Your task to perform on an android device: Show the shopping cart on amazon. Add "acer nitro" to the cart on amazon Image 0: 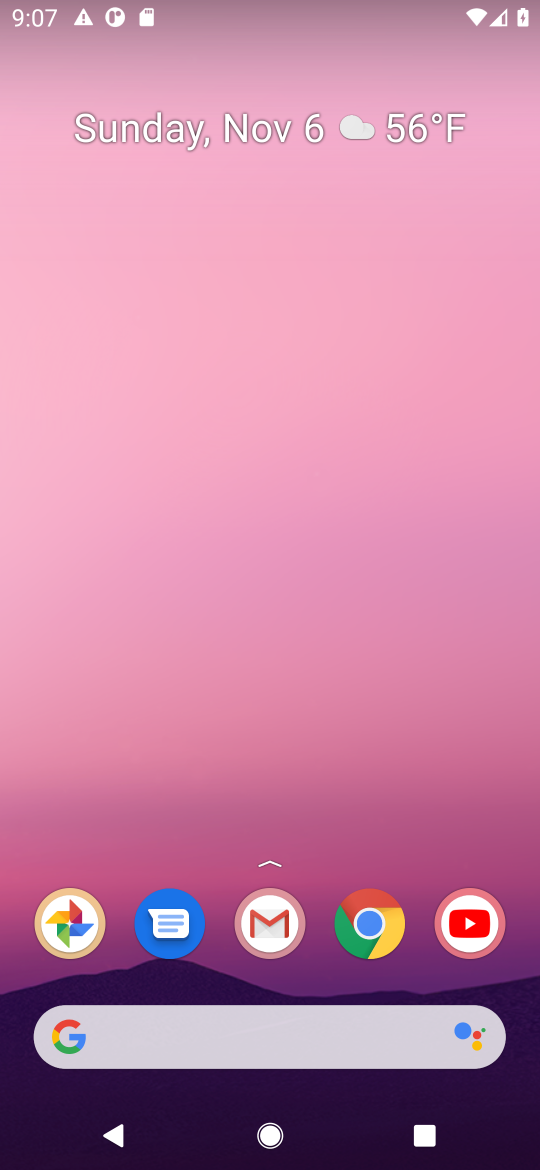
Step 0: click (363, 945)
Your task to perform on an android device: Show the shopping cart on amazon. Add "acer nitro" to the cart on amazon Image 1: 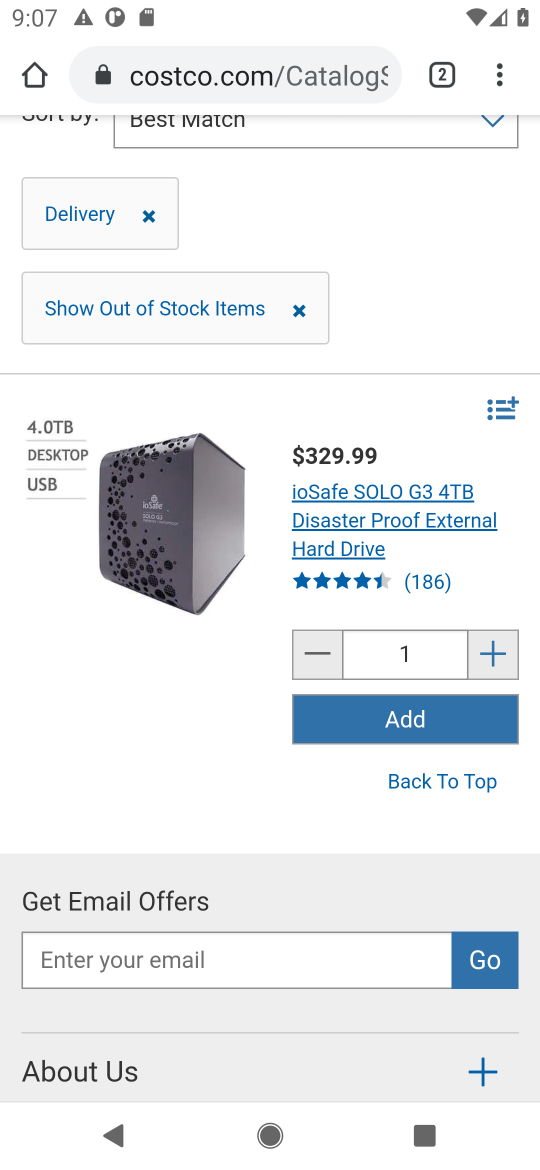
Step 1: click (241, 71)
Your task to perform on an android device: Show the shopping cart on amazon. Add "acer nitro" to the cart on amazon Image 2: 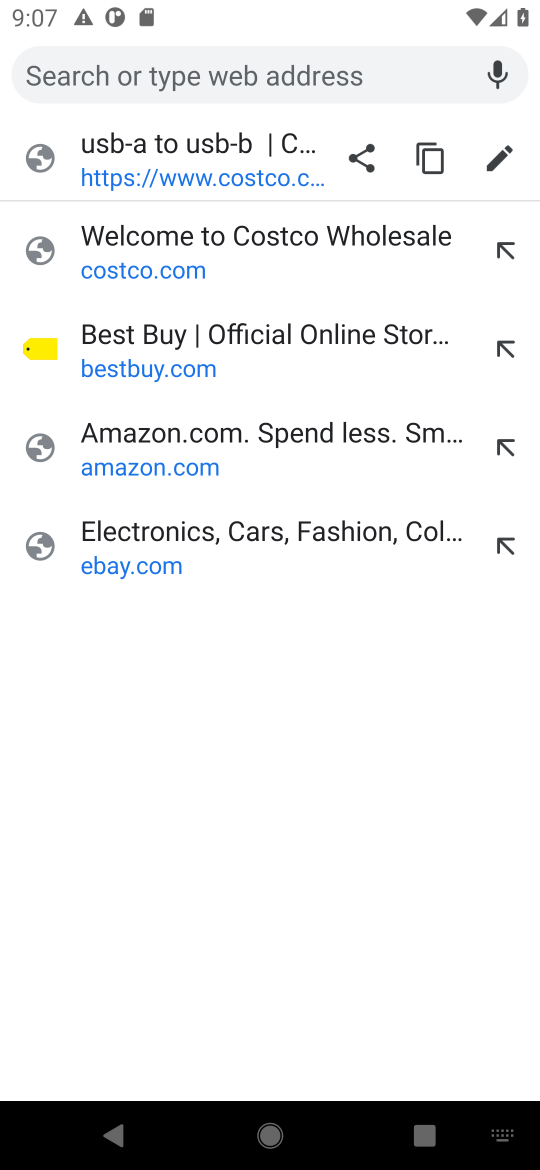
Step 2: click (159, 471)
Your task to perform on an android device: Show the shopping cart on amazon. Add "acer nitro" to the cart on amazon Image 3: 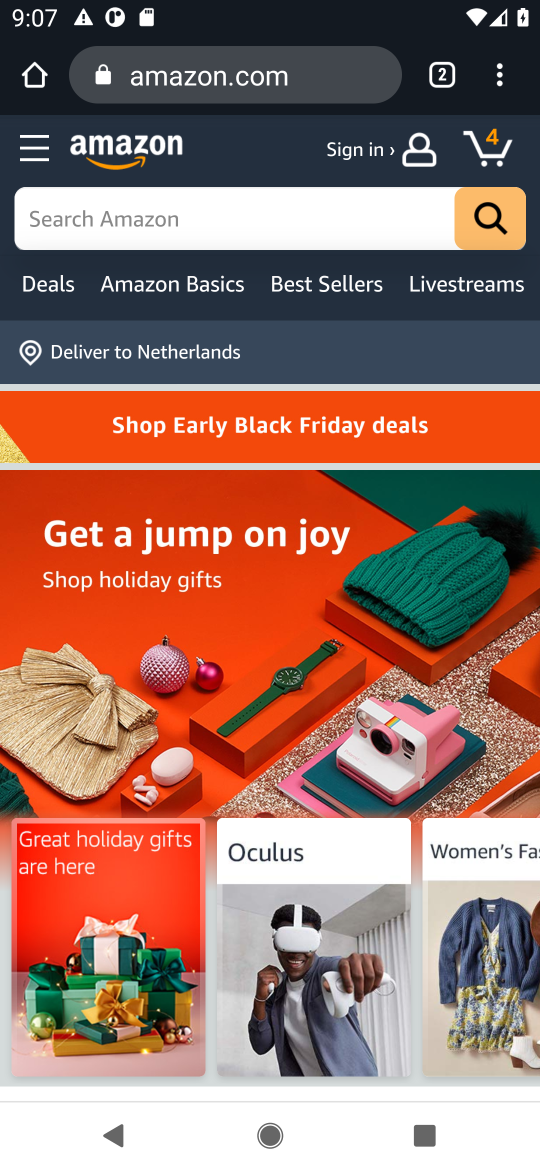
Step 3: click (481, 142)
Your task to perform on an android device: Show the shopping cart on amazon. Add "acer nitro" to the cart on amazon Image 4: 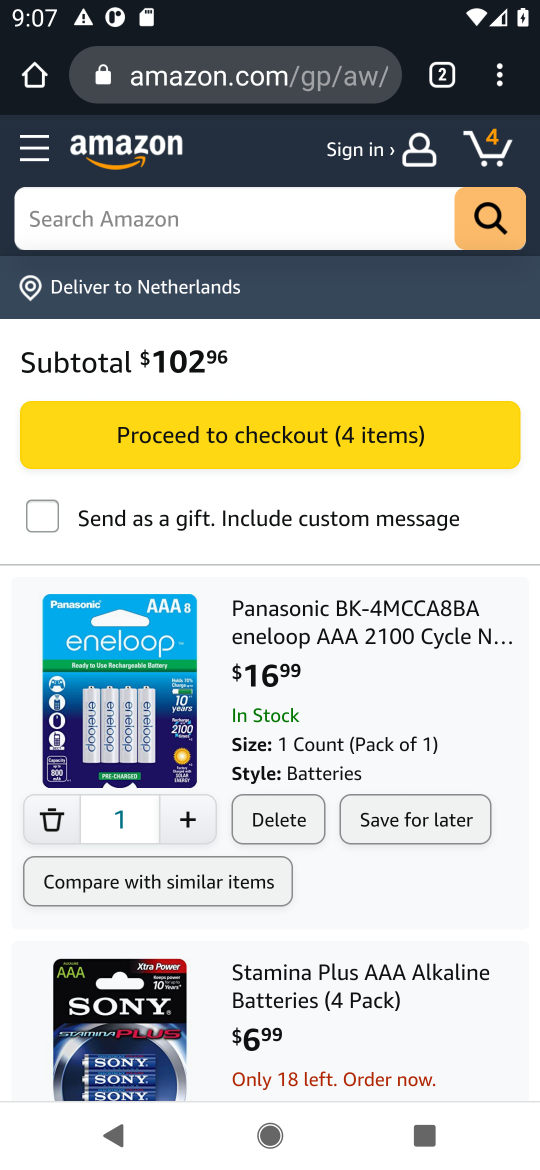
Step 4: click (285, 225)
Your task to perform on an android device: Show the shopping cart on amazon. Add "acer nitro" to the cart on amazon Image 5: 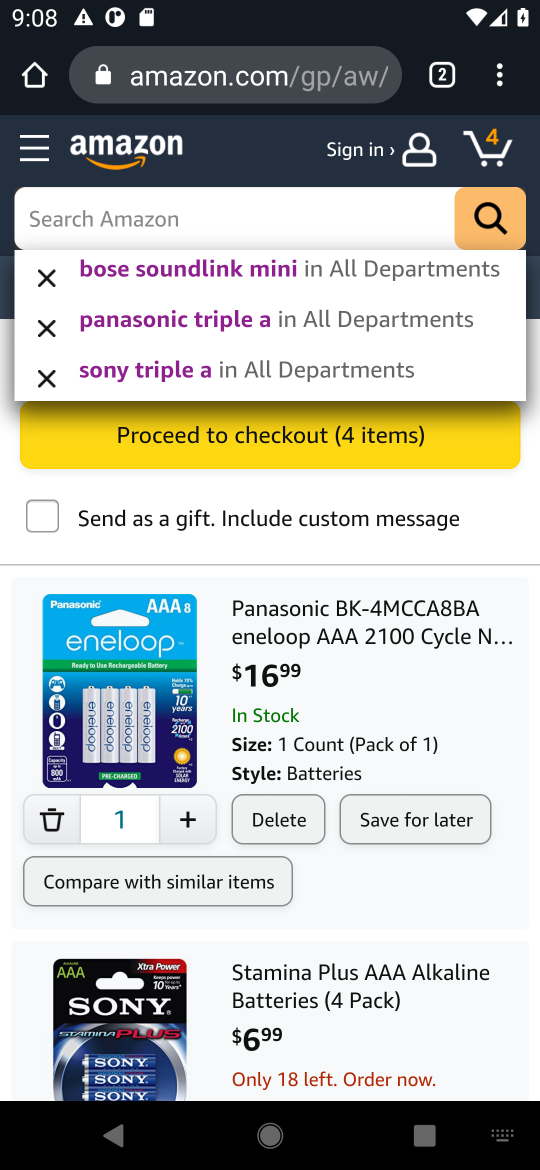
Step 5: type "acer nitro"
Your task to perform on an android device: Show the shopping cart on amazon. Add "acer nitro" to the cart on amazon Image 6: 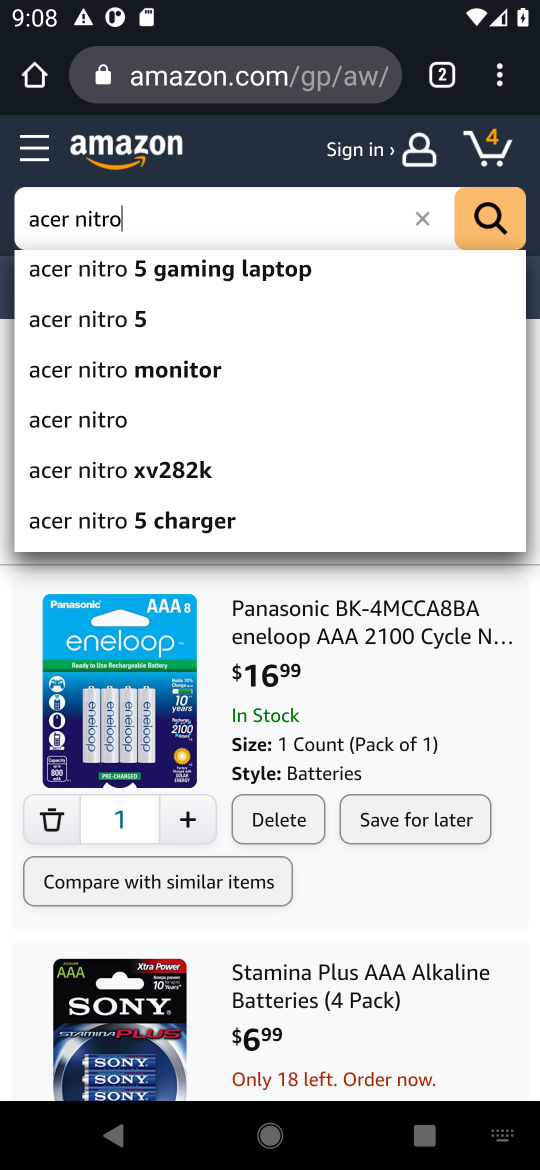
Step 6: click (71, 419)
Your task to perform on an android device: Show the shopping cart on amazon. Add "acer nitro" to the cart on amazon Image 7: 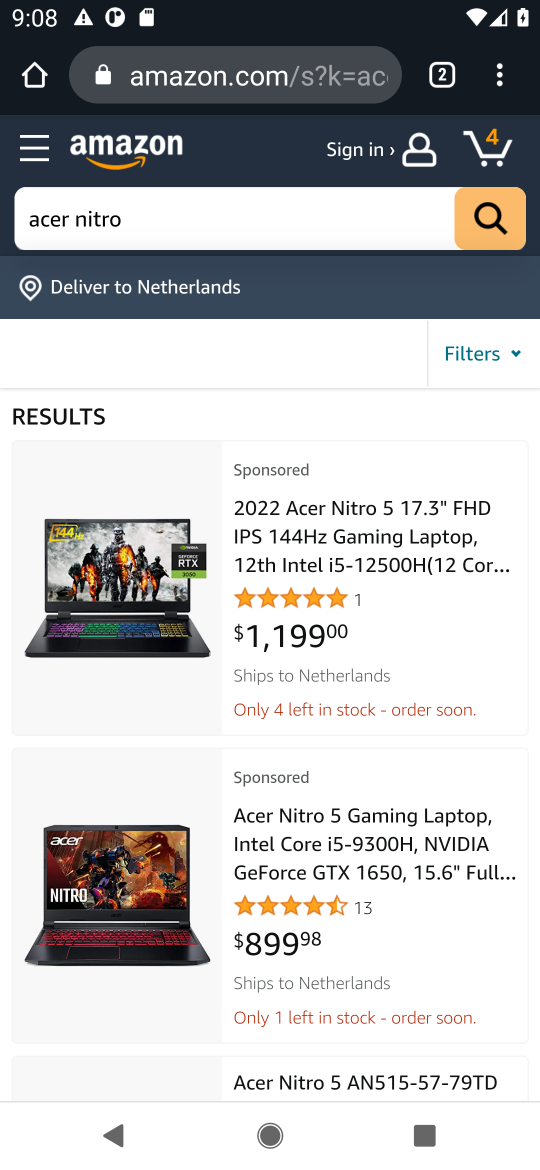
Step 7: click (336, 578)
Your task to perform on an android device: Show the shopping cart on amazon. Add "acer nitro" to the cart on amazon Image 8: 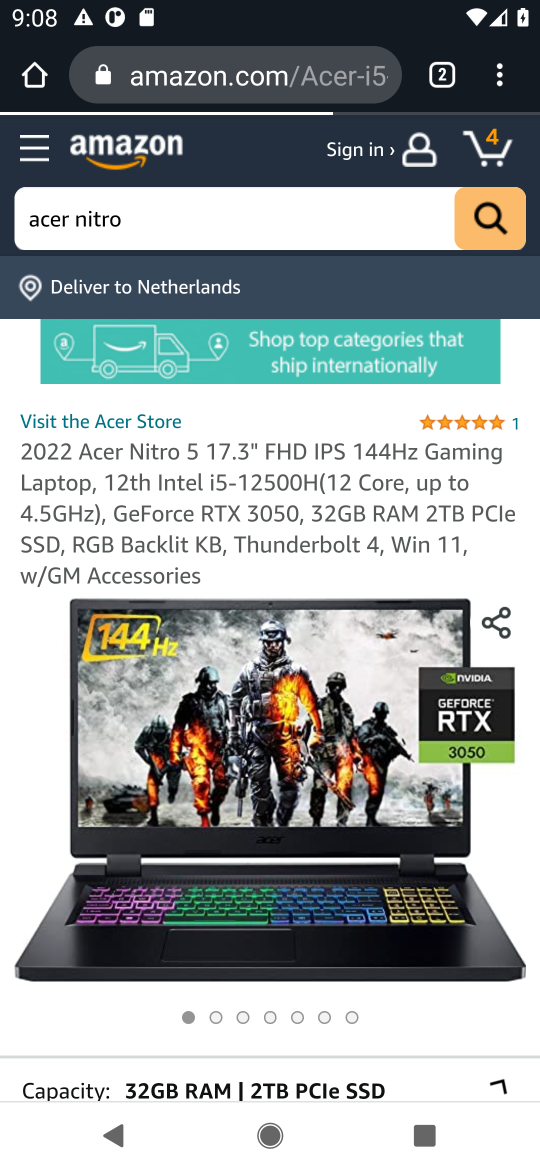
Step 8: drag from (184, 824) to (194, 351)
Your task to perform on an android device: Show the shopping cart on amazon. Add "acer nitro" to the cart on amazon Image 9: 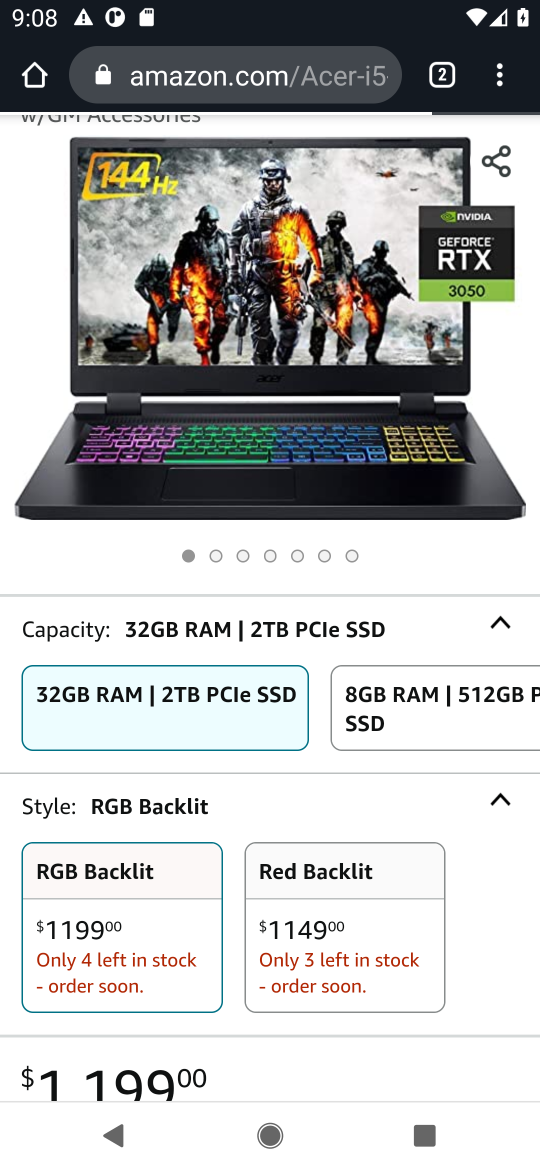
Step 9: drag from (331, 1008) to (283, 483)
Your task to perform on an android device: Show the shopping cart on amazon. Add "acer nitro" to the cart on amazon Image 10: 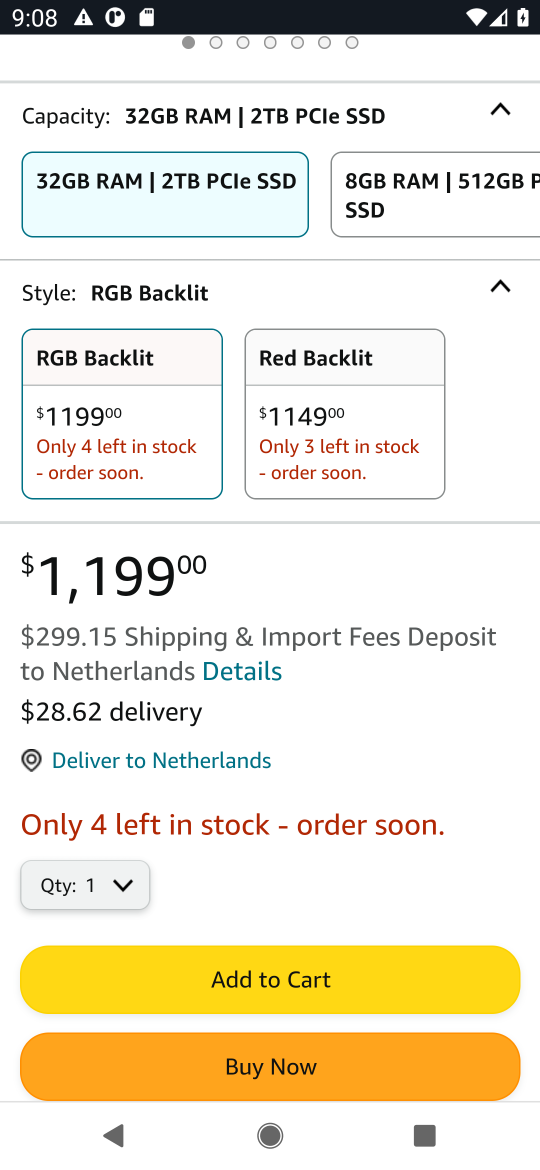
Step 10: click (332, 973)
Your task to perform on an android device: Show the shopping cart on amazon. Add "acer nitro" to the cart on amazon Image 11: 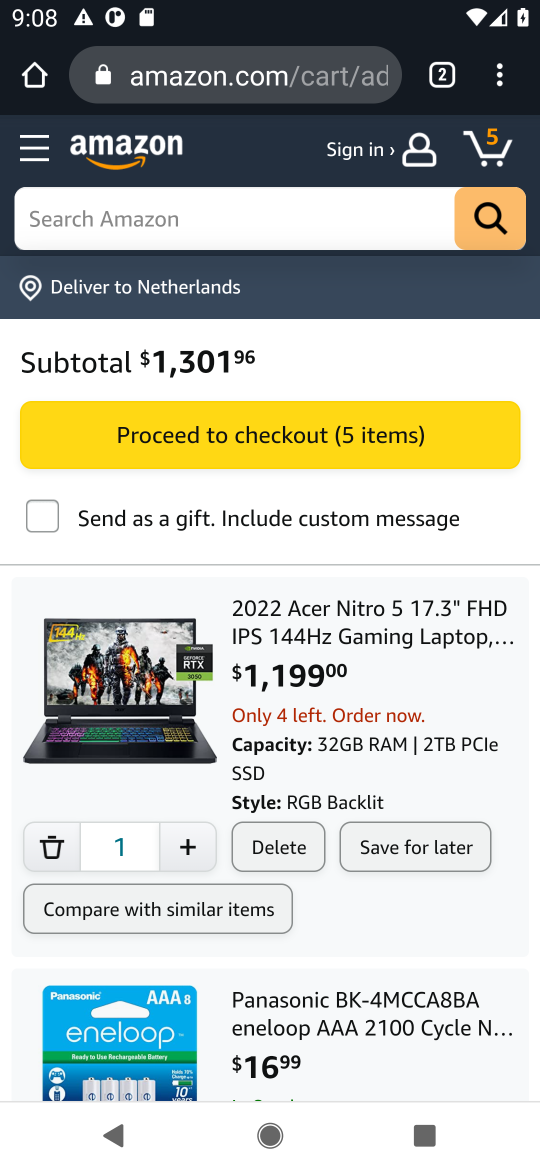
Step 11: task complete